Your task to perform on an android device: open app "Instagram" (install if not already installed) Image 0: 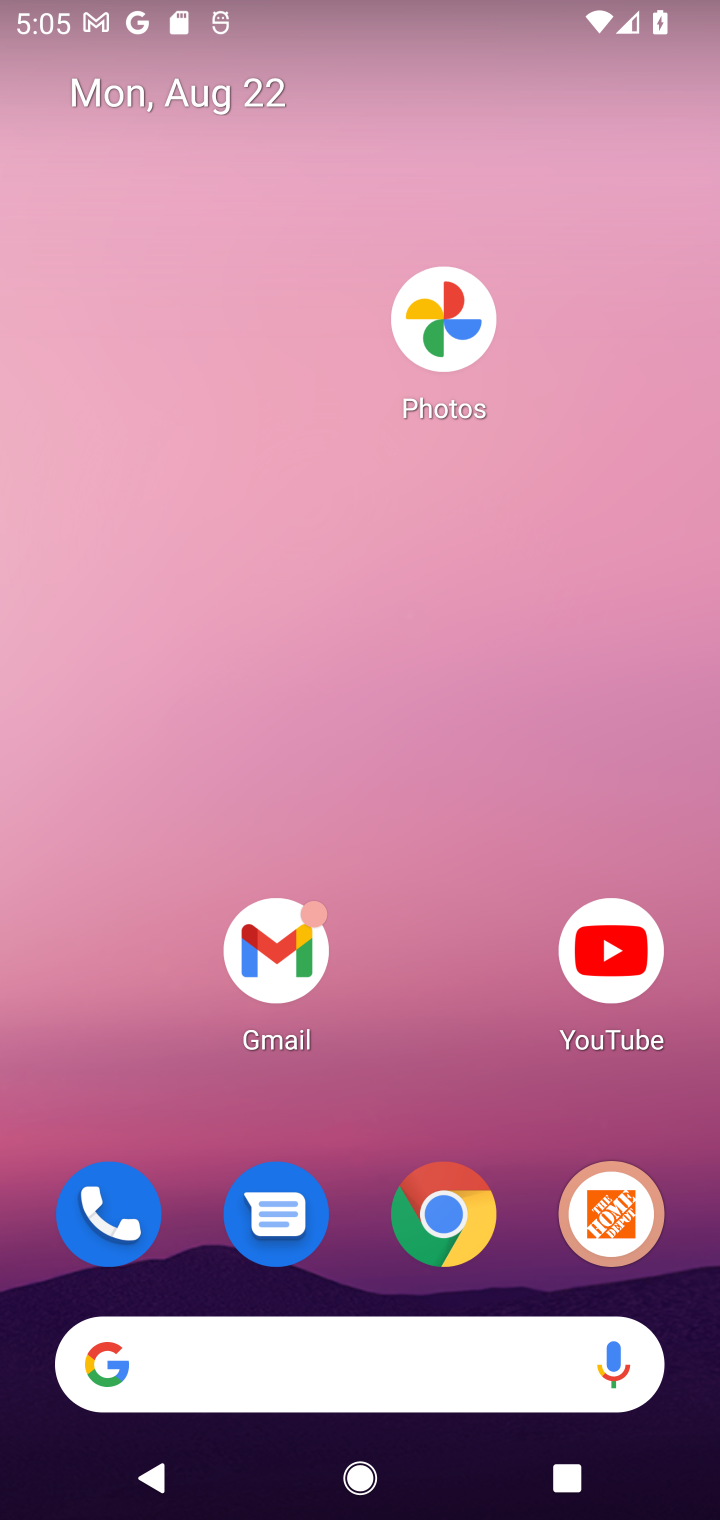
Step 0: drag from (542, 1278) to (470, 212)
Your task to perform on an android device: open app "Instagram" (install if not already installed) Image 1: 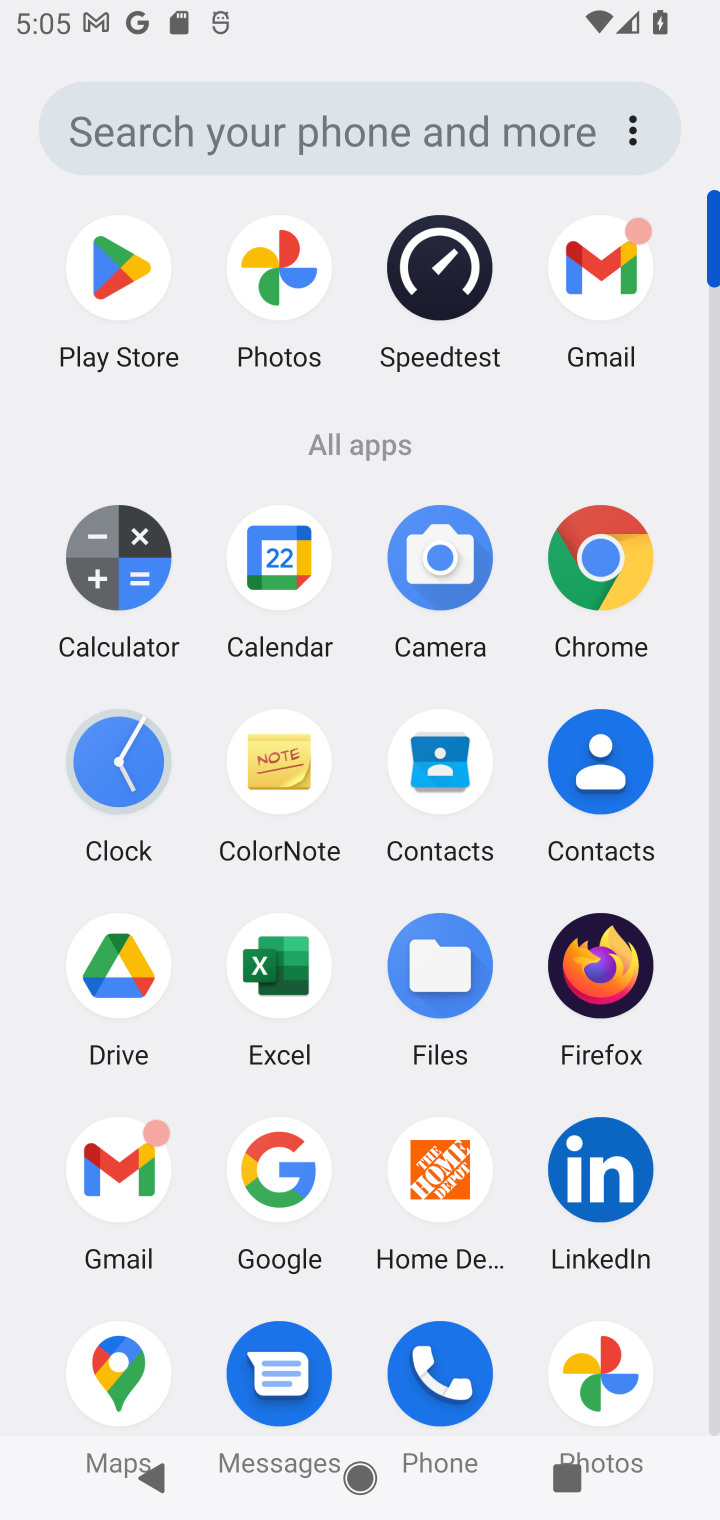
Step 1: drag from (519, 1313) to (506, 627)
Your task to perform on an android device: open app "Instagram" (install if not already installed) Image 2: 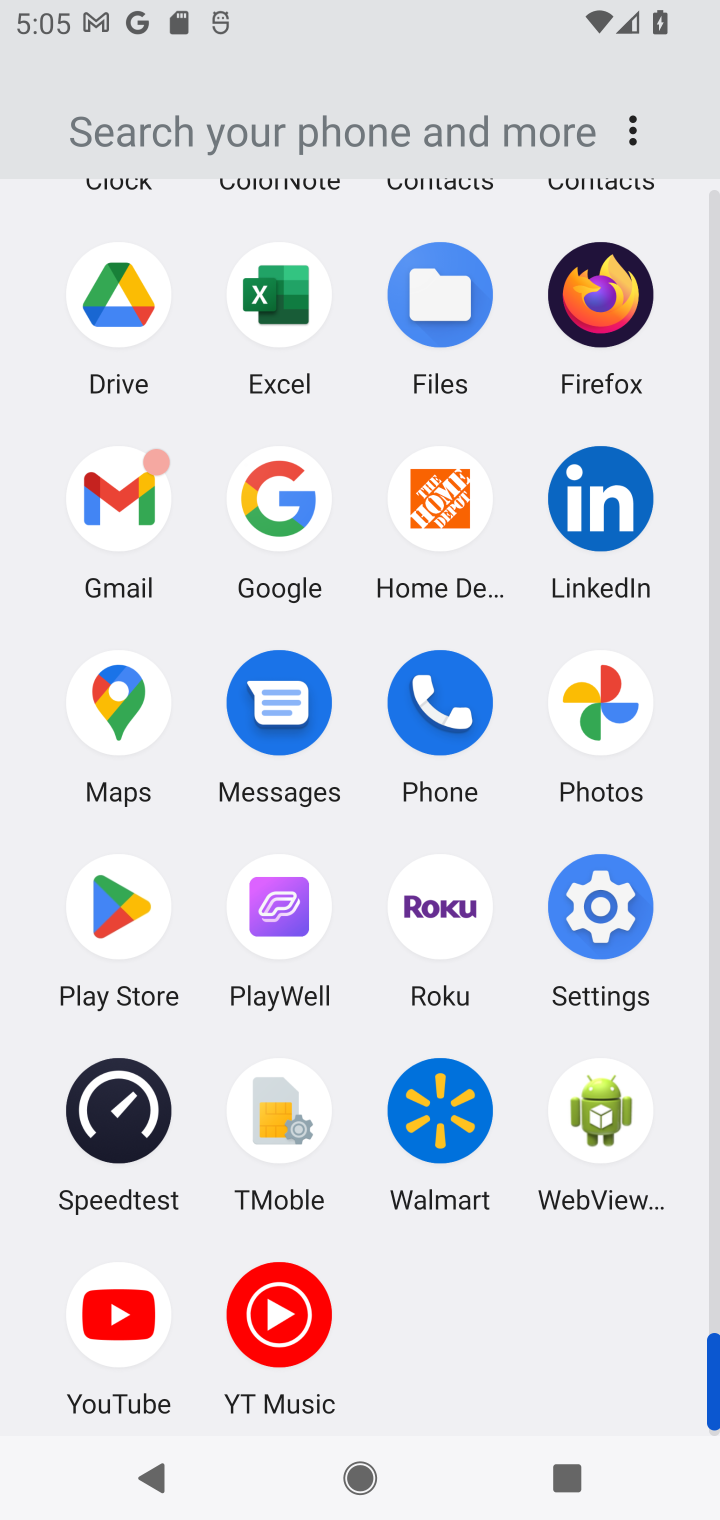
Step 2: click (114, 910)
Your task to perform on an android device: open app "Instagram" (install if not already installed) Image 3: 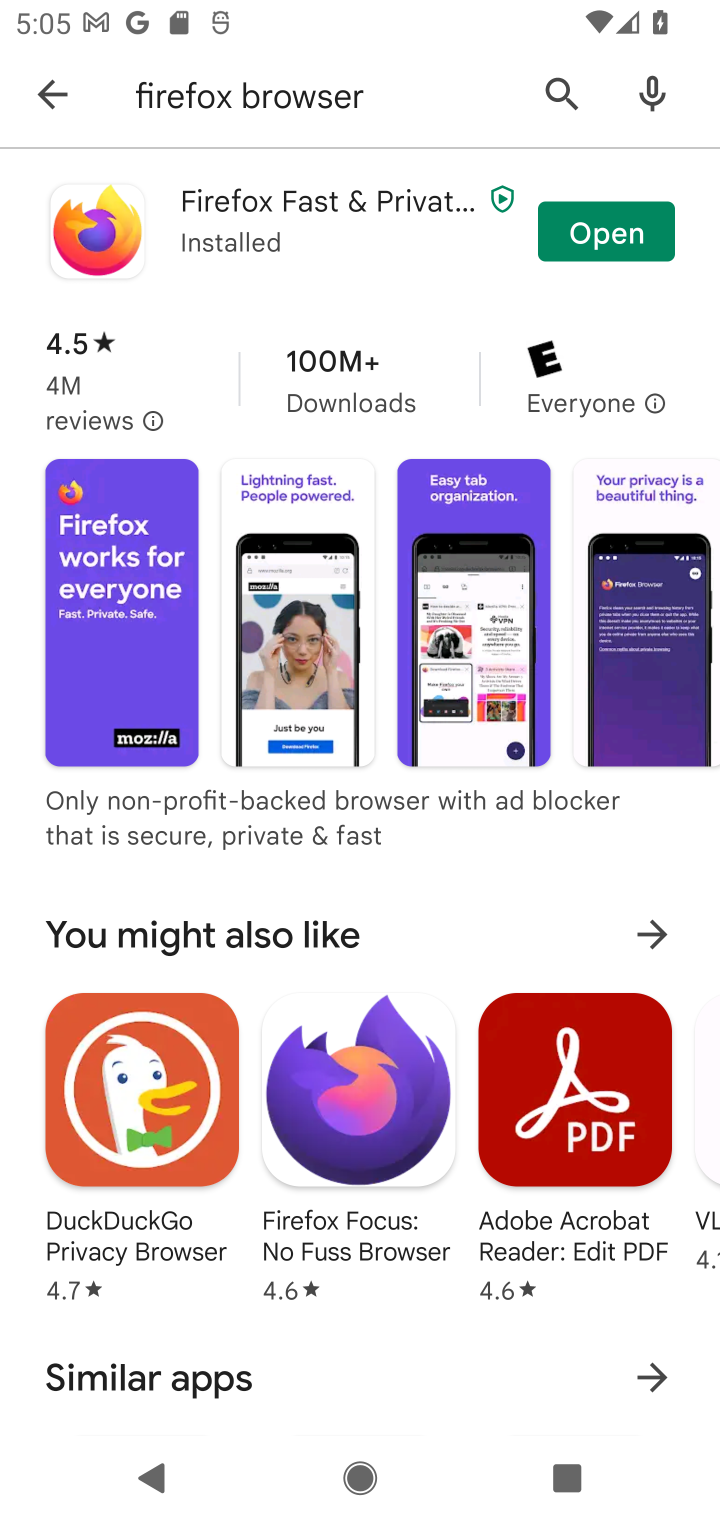
Step 3: click (557, 90)
Your task to perform on an android device: open app "Instagram" (install if not already installed) Image 4: 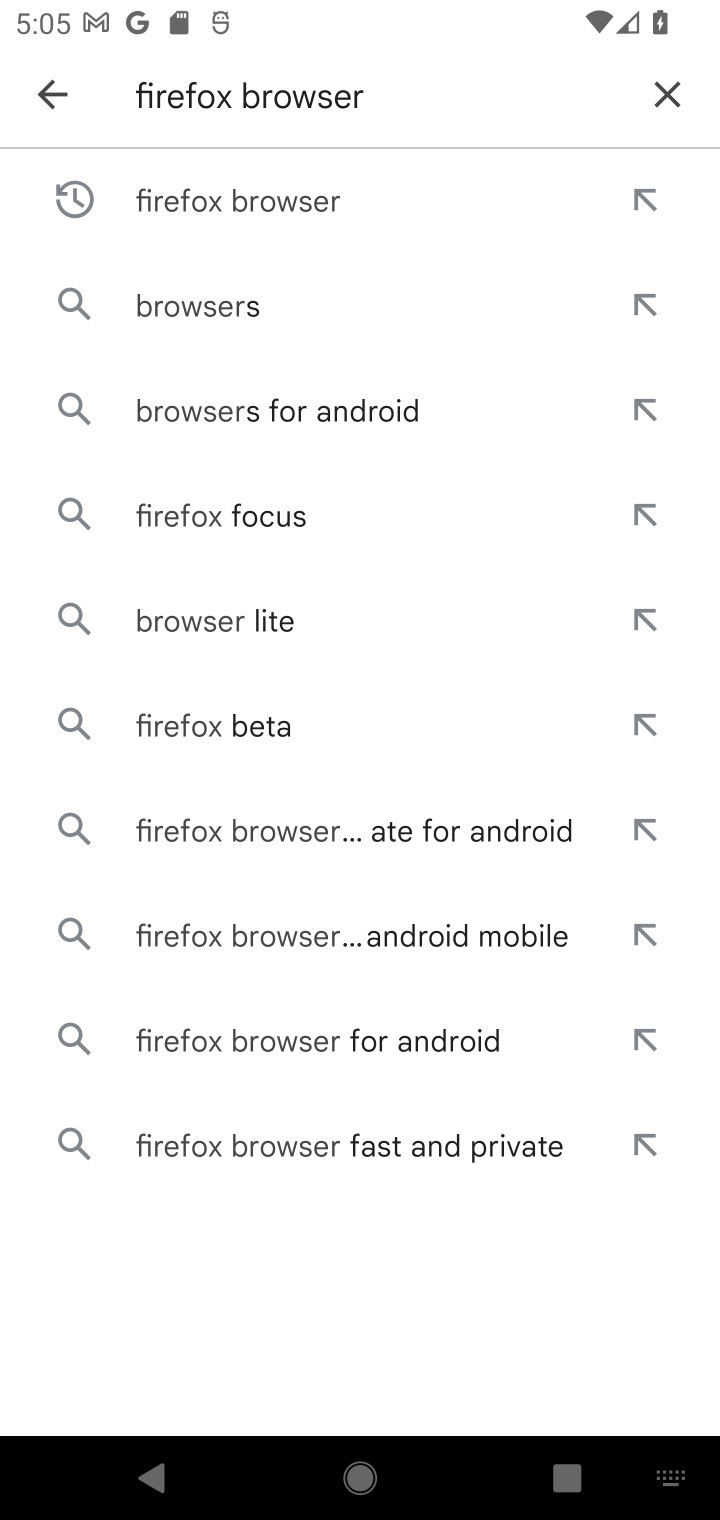
Step 4: click (675, 82)
Your task to perform on an android device: open app "Instagram" (install if not already installed) Image 5: 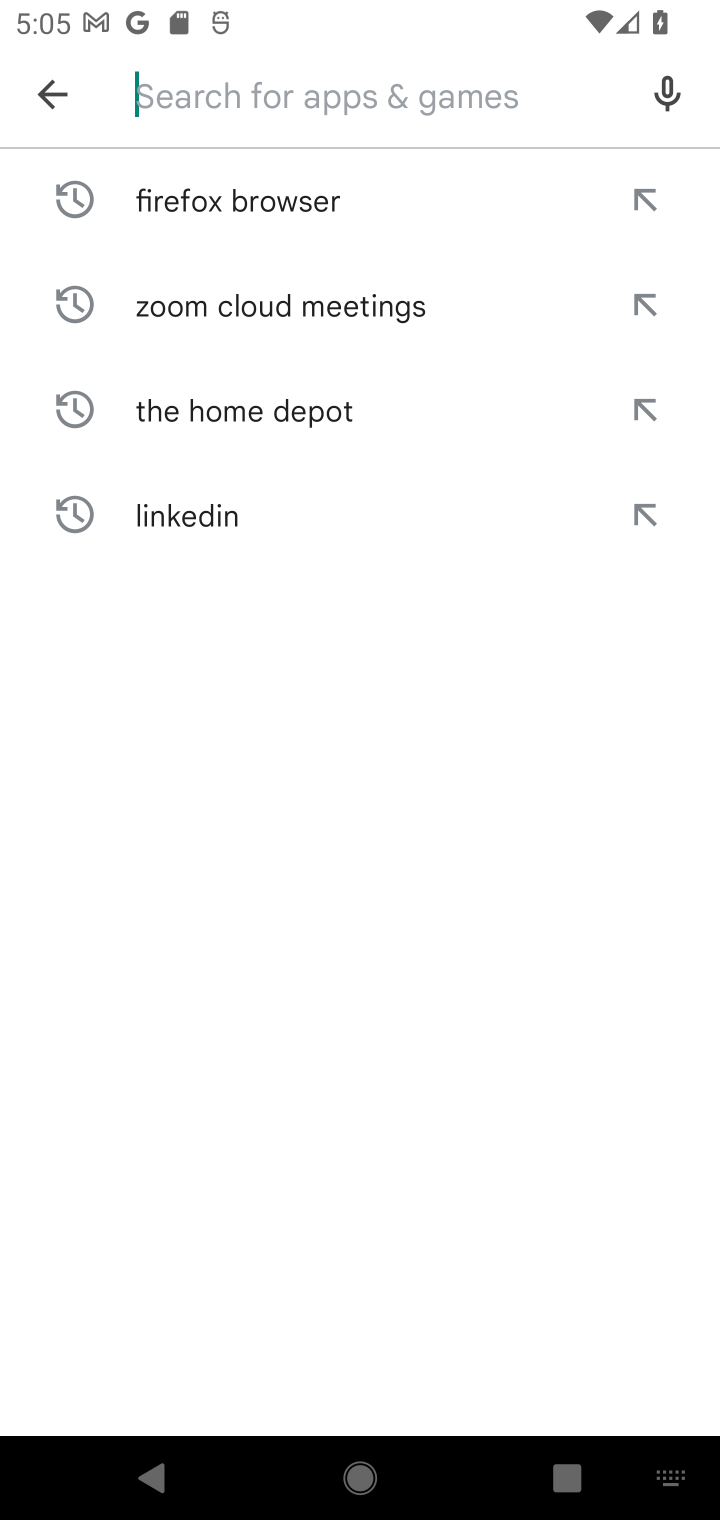
Step 5: type "instagram"
Your task to perform on an android device: open app "Instagram" (install if not already installed) Image 6: 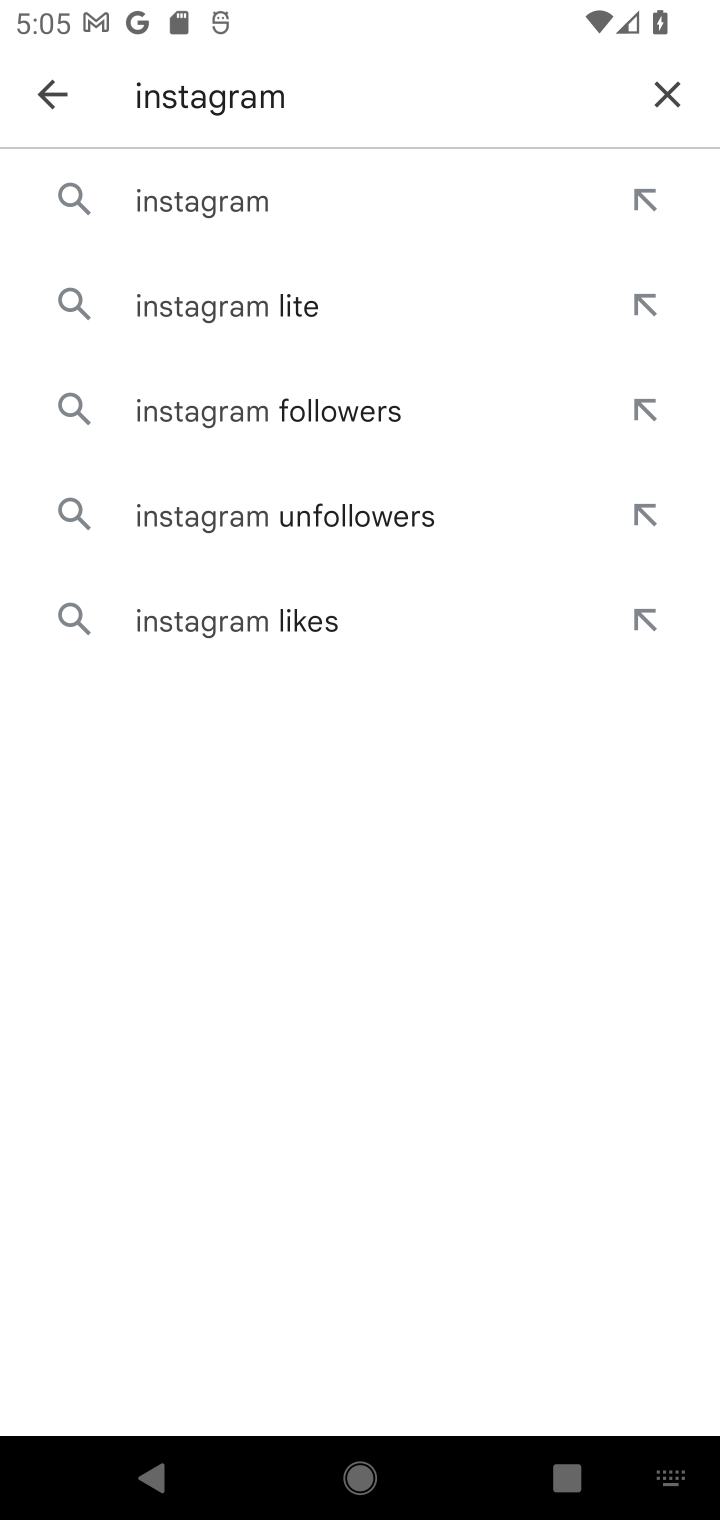
Step 6: click (168, 189)
Your task to perform on an android device: open app "Instagram" (install if not already installed) Image 7: 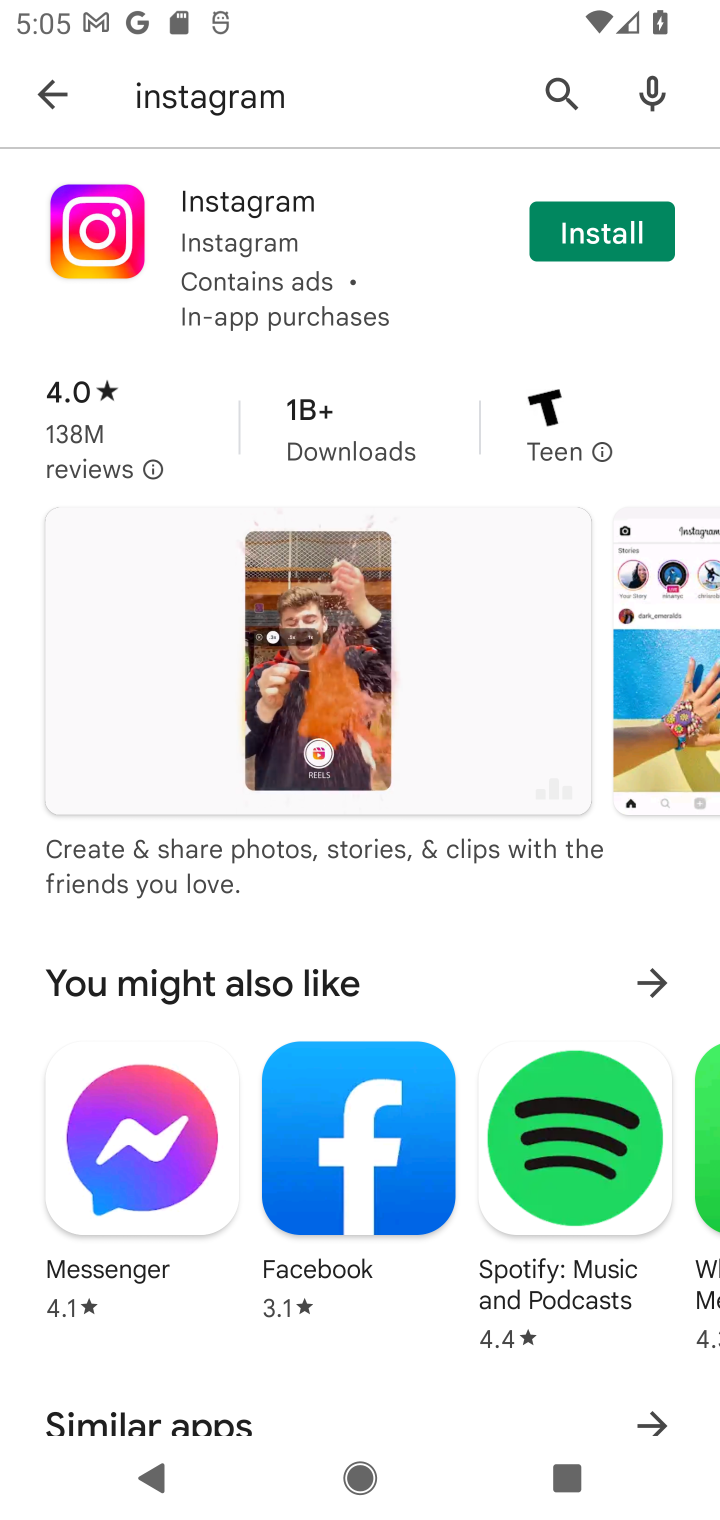
Step 7: click (591, 224)
Your task to perform on an android device: open app "Instagram" (install if not already installed) Image 8: 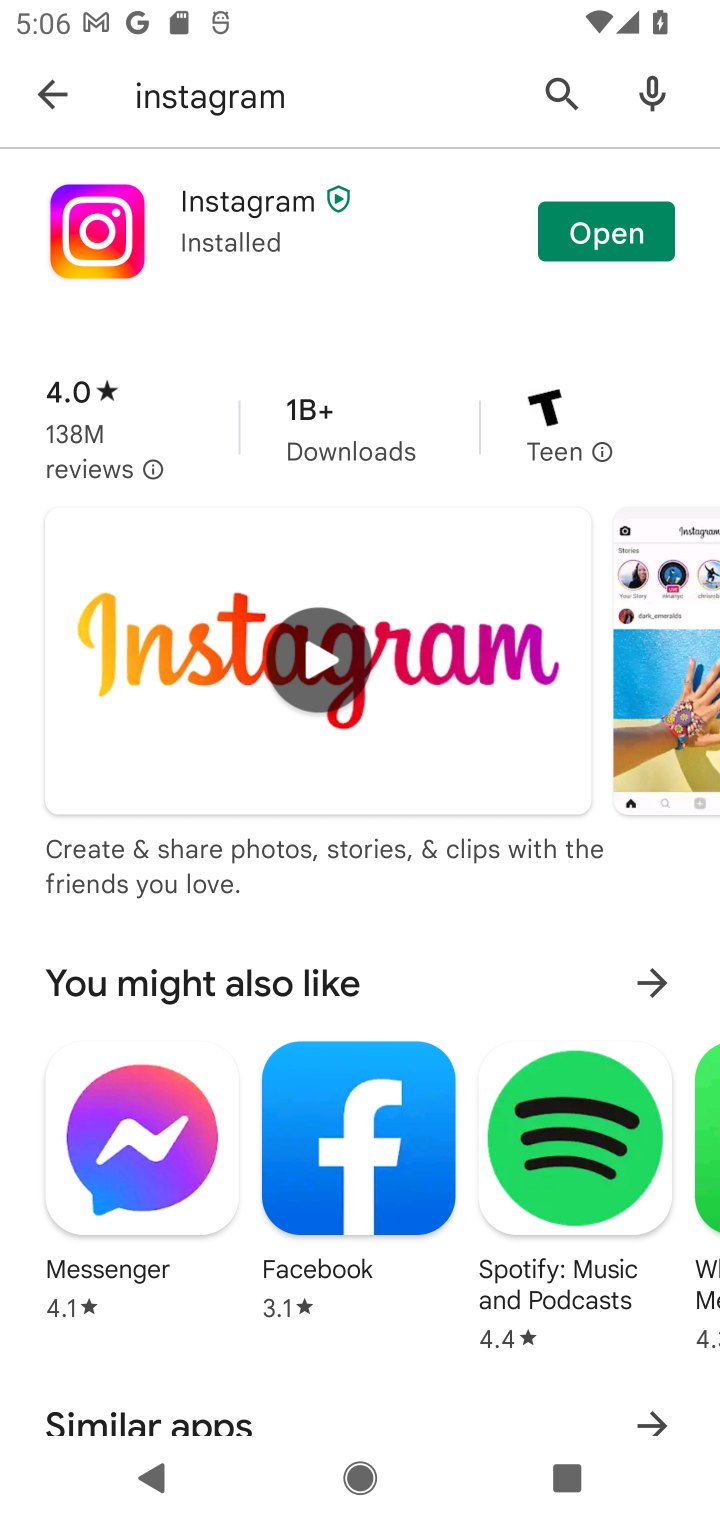
Step 8: click (597, 234)
Your task to perform on an android device: open app "Instagram" (install if not already installed) Image 9: 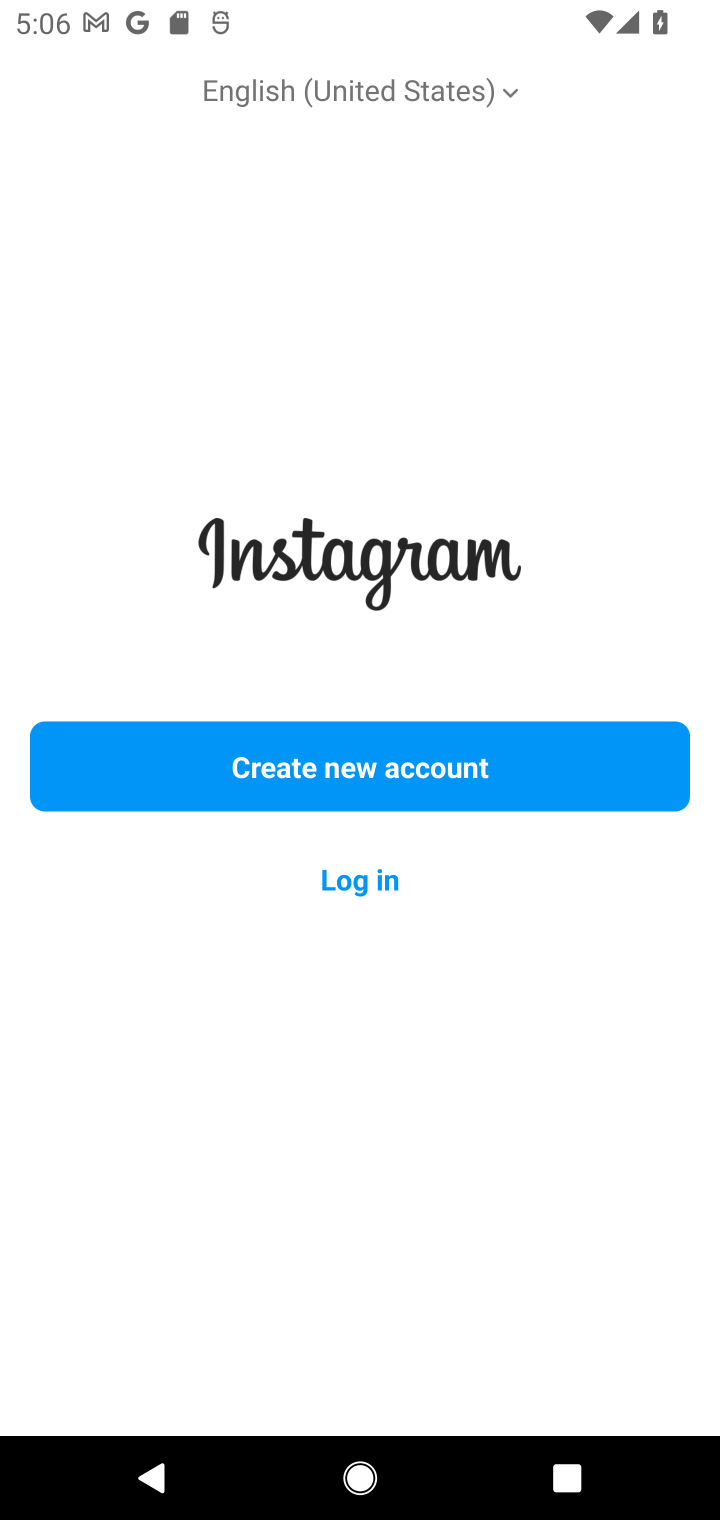
Step 9: task complete